Your task to perform on an android device: turn off notifications in google photos Image 0: 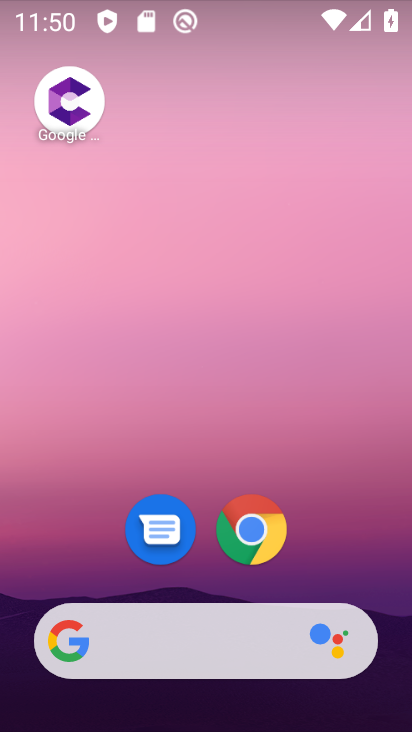
Step 0: drag from (65, 589) to (161, 141)
Your task to perform on an android device: turn off notifications in google photos Image 1: 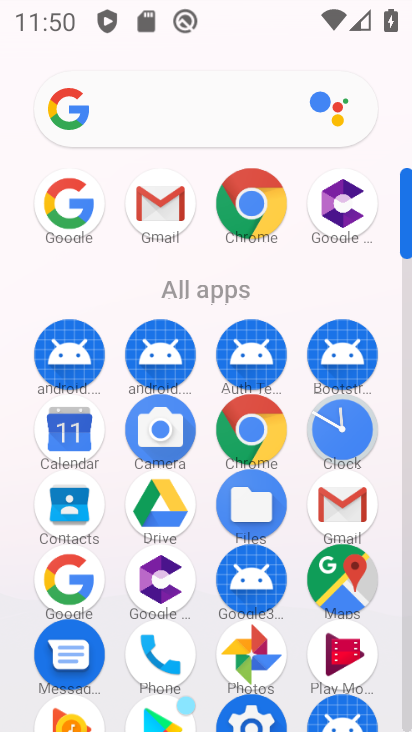
Step 1: drag from (144, 618) to (172, 467)
Your task to perform on an android device: turn off notifications in google photos Image 2: 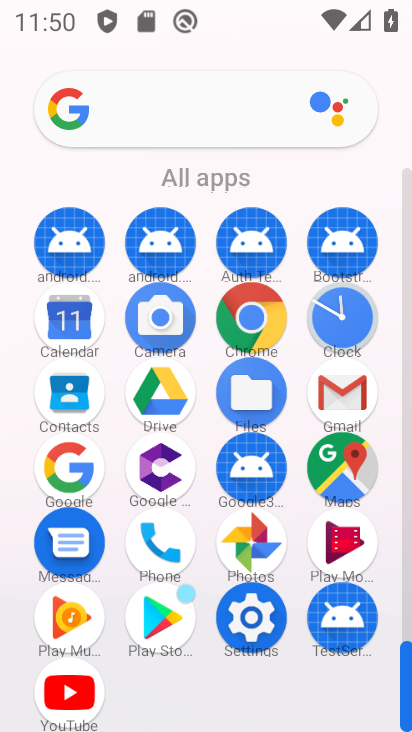
Step 2: click (235, 540)
Your task to perform on an android device: turn off notifications in google photos Image 3: 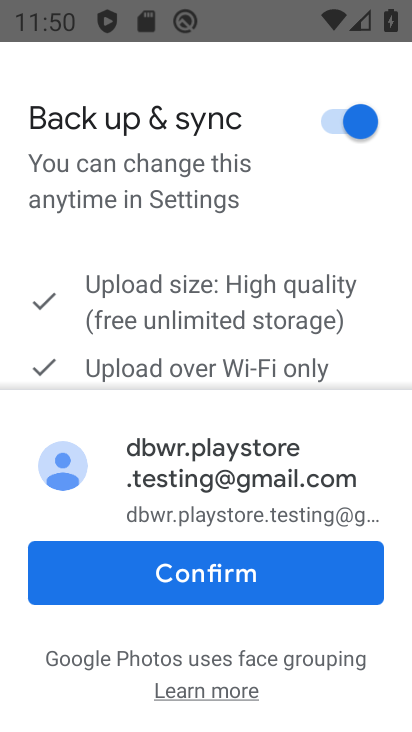
Step 3: click (253, 588)
Your task to perform on an android device: turn off notifications in google photos Image 4: 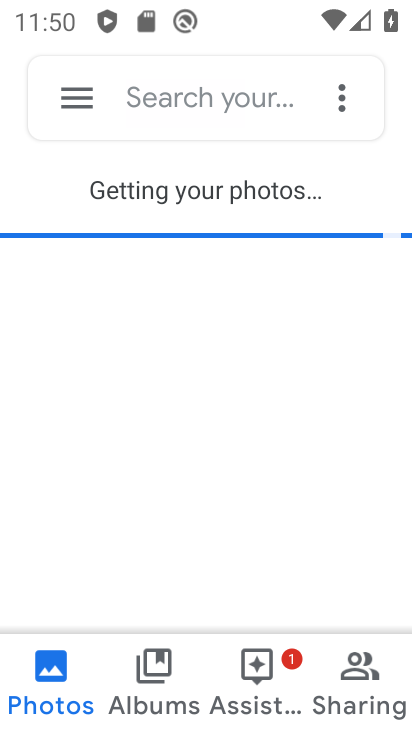
Step 4: click (72, 95)
Your task to perform on an android device: turn off notifications in google photos Image 5: 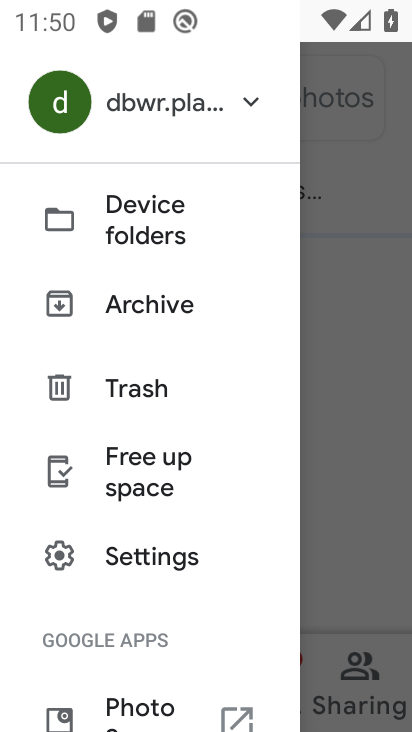
Step 5: click (141, 551)
Your task to perform on an android device: turn off notifications in google photos Image 6: 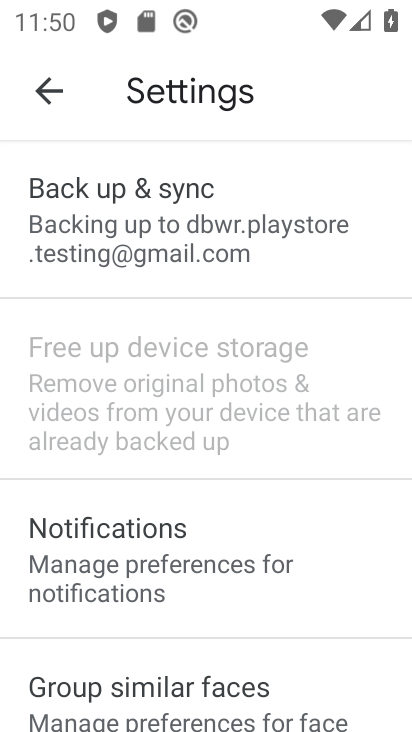
Step 6: click (142, 550)
Your task to perform on an android device: turn off notifications in google photos Image 7: 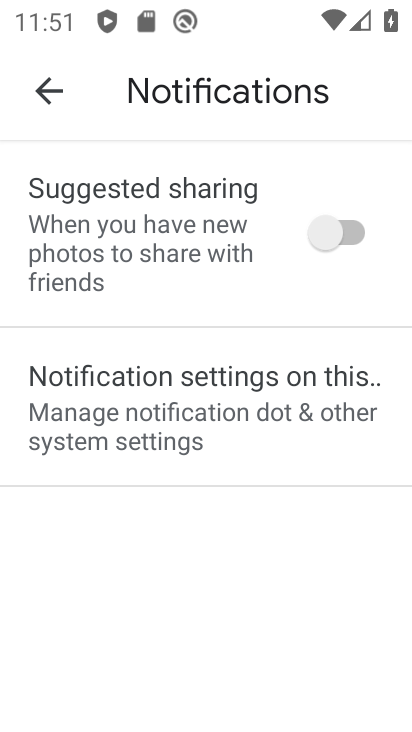
Step 7: click (142, 551)
Your task to perform on an android device: turn off notifications in google photos Image 8: 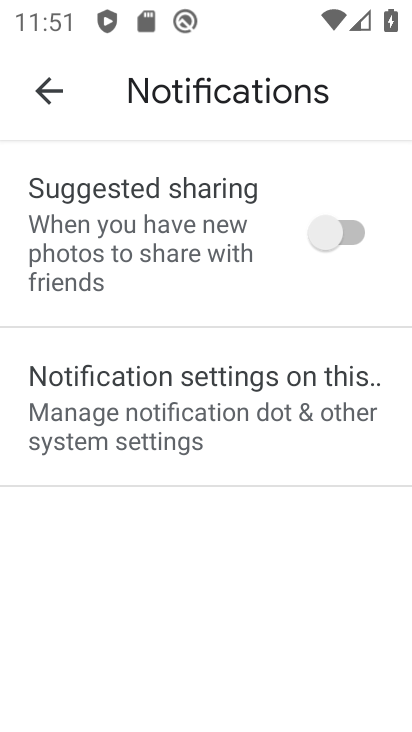
Step 8: click (166, 421)
Your task to perform on an android device: turn off notifications in google photos Image 9: 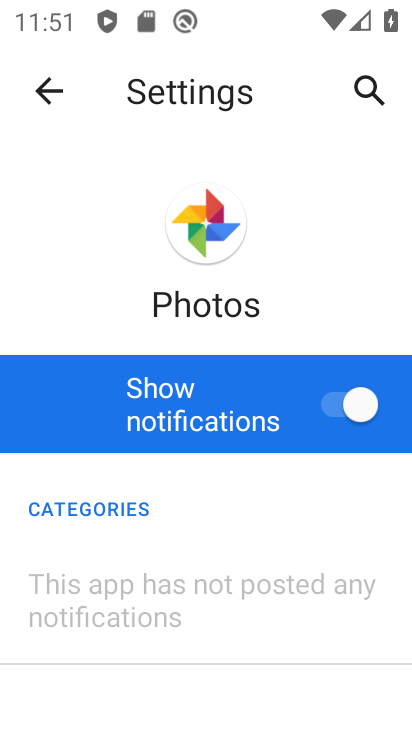
Step 9: click (339, 403)
Your task to perform on an android device: turn off notifications in google photos Image 10: 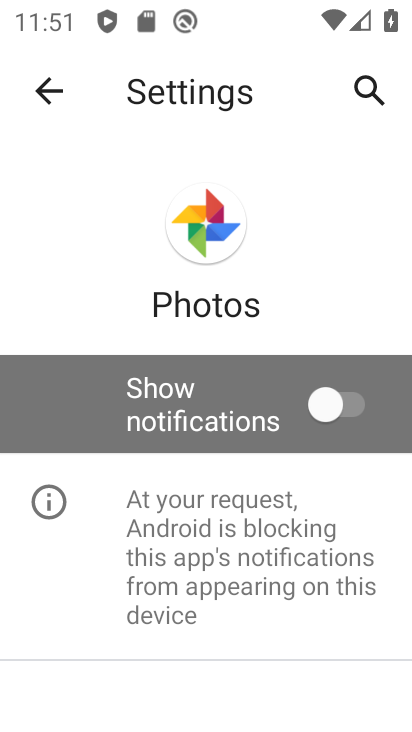
Step 10: task complete